Your task to perform on an android device: turn on location history Image 0: 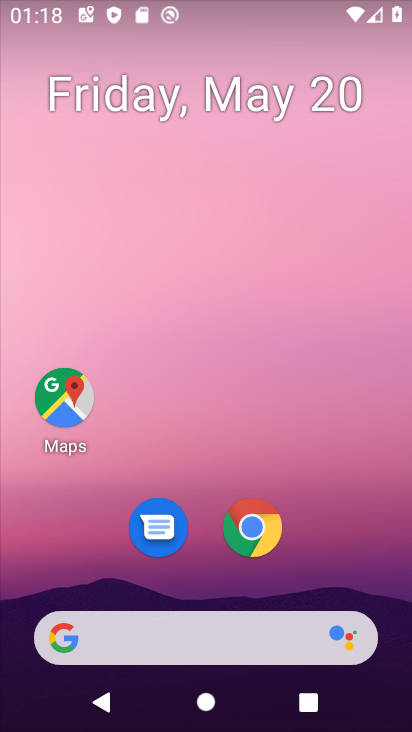
Step 0: press home button
Your task to perform on an android device: turn on location history Image 1: 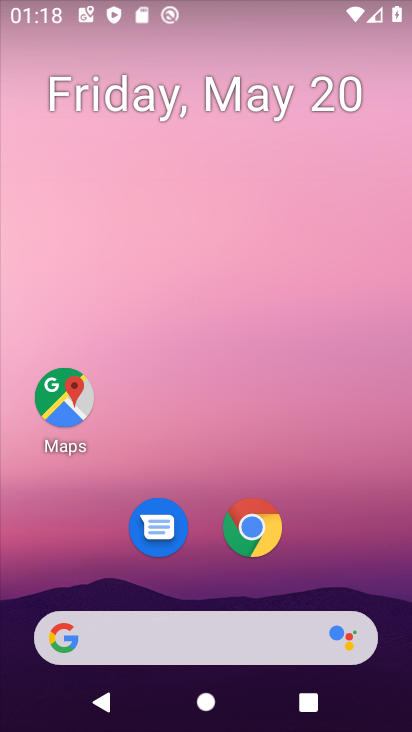
Step 1: click (59, 412)
Your task to perform on an android device: turn on location history Image 2: 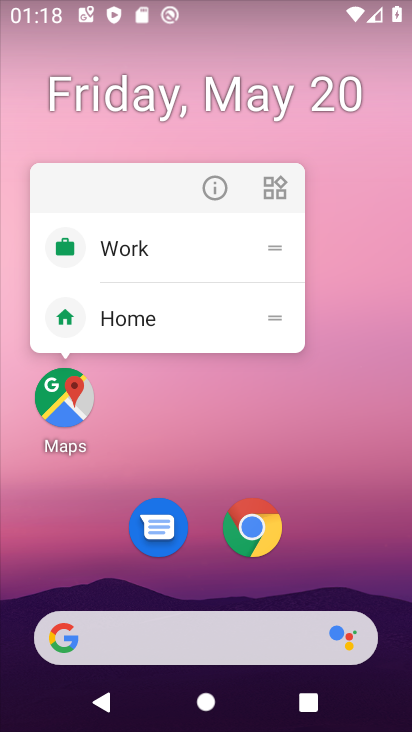
Step 2: click (69, 404)
Your task to perform on an android device: turn on location history Image 3: 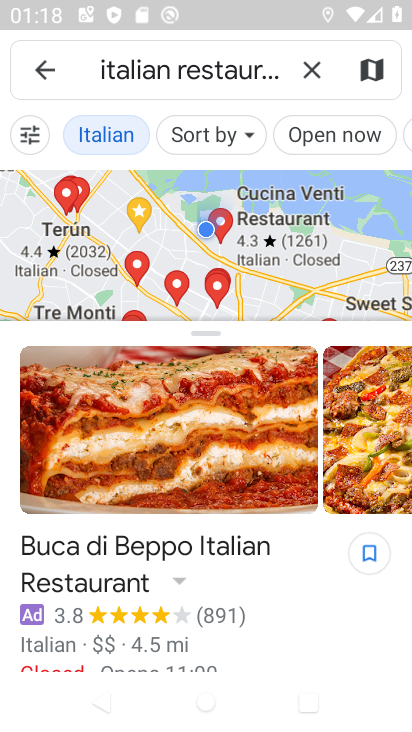
Step 3: click (48, 68)
Your task to perform on an android device: turn on location history Image 4: 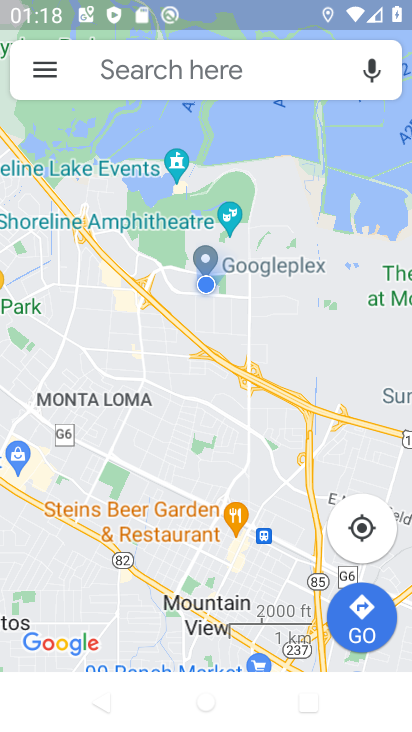
Step 4: click (48, 68)
Your task to perform on an android device: turn on location history Image 5: 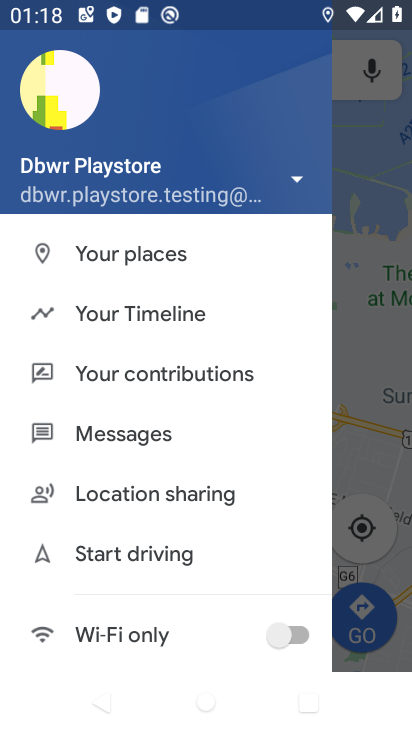
Step 5: click (147, 303)
Your task to perform on an android device: turn on location history Image 6: 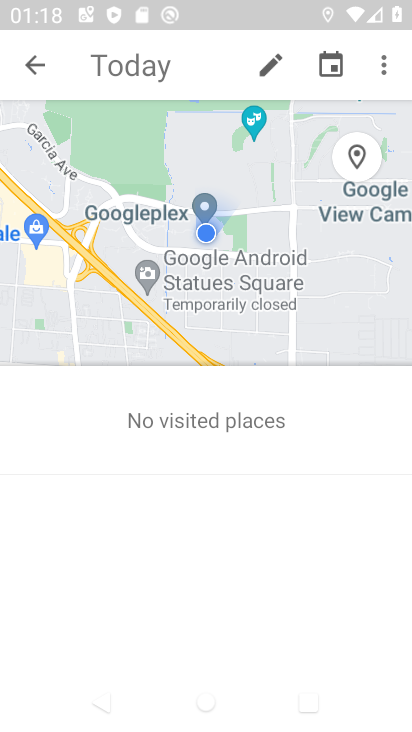
Step 6: click (385, 66)
Your task to perform on an android device: turn on location history Image 7: 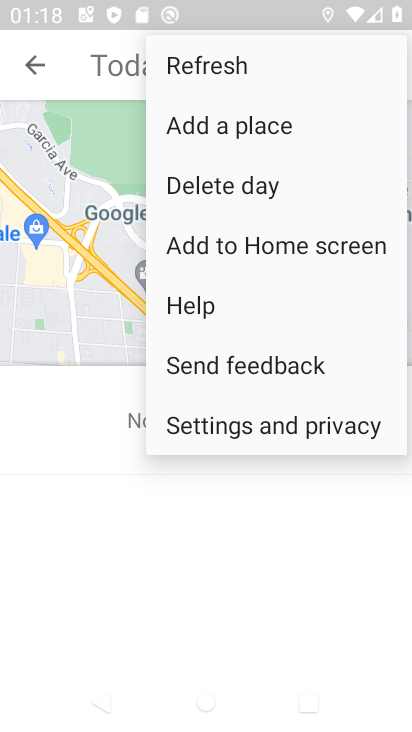
Step 7: click (241, 430)
Your task to perform on an android device: turn on location history Image 8: 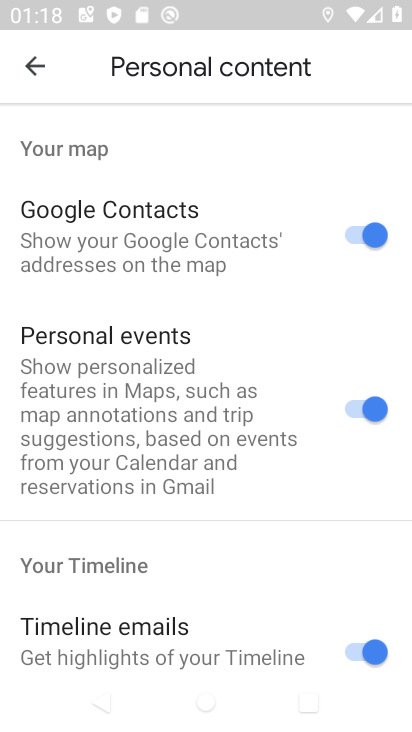
Step 8: drag from (168, 654) to (243, 192)
Your task to perform on an android device: turn on location history Image 9: 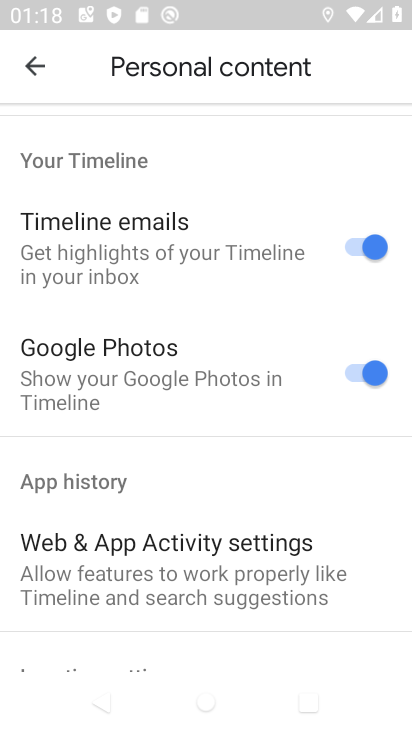
Step 9: drag from (180, 643) to (285, 106)
Your task to perform on an android device: turn on location history Image 10: 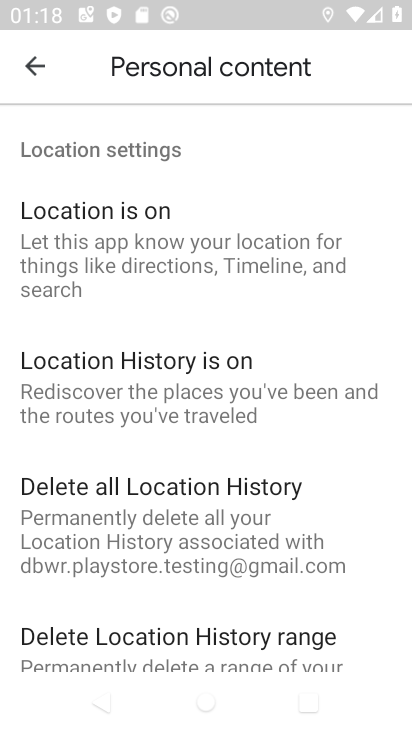
Step 10: click (189, 390)
Your task to perform on an android device: turn on location history Image 11: 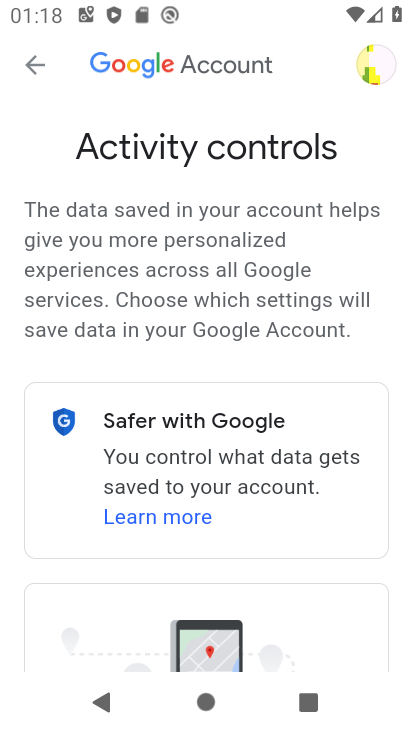
Step 11: task complete